Your task to perform on an android device: Open Yahoo.com Image 0: 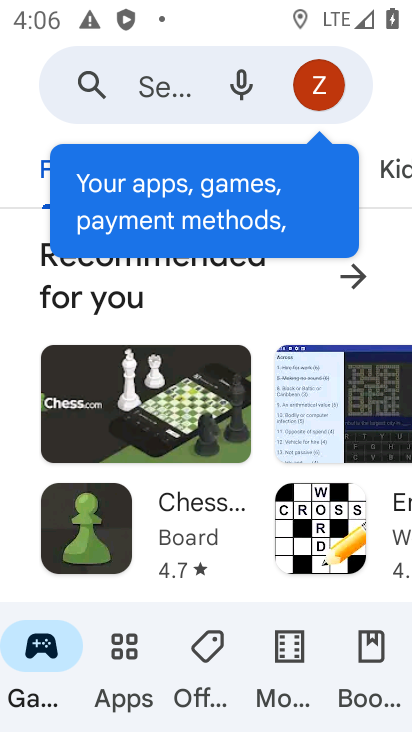
Step 0: press home button
Your task to perform on an android device: Open Yahoo.com Image 1: 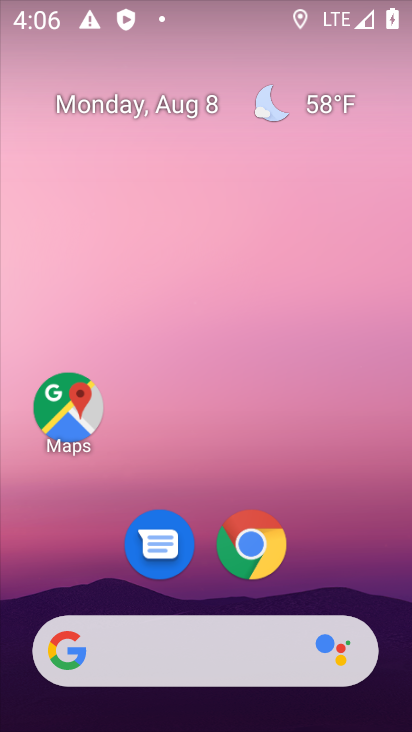
Step 1: drag from (213, 615) to (332, 147)
Your task to perform on an android device: Open Yahoo.com Image 2: 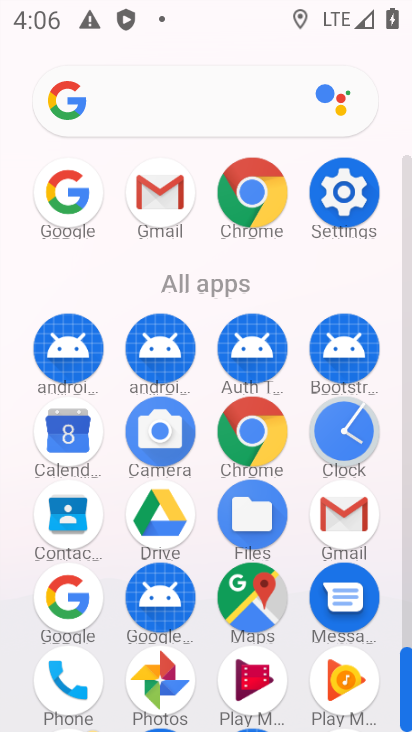
Step 2: click (247, 223)
Your task to perform on an android device: Open Yahoo.com Image 3: 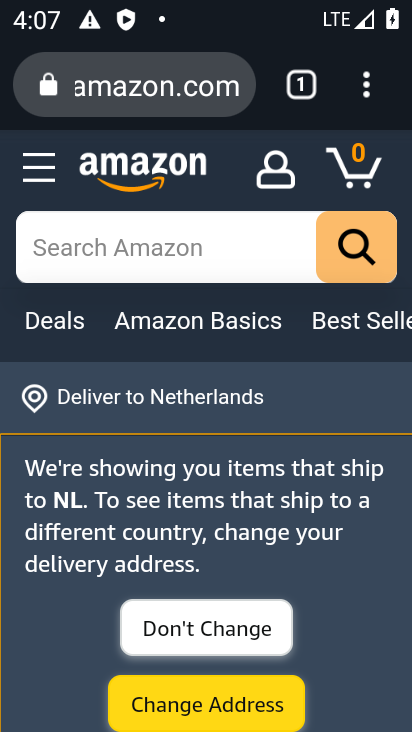
Step 3: click (157, 96)
Your task to perform on an android device: Open Yahoo.com Image 4: 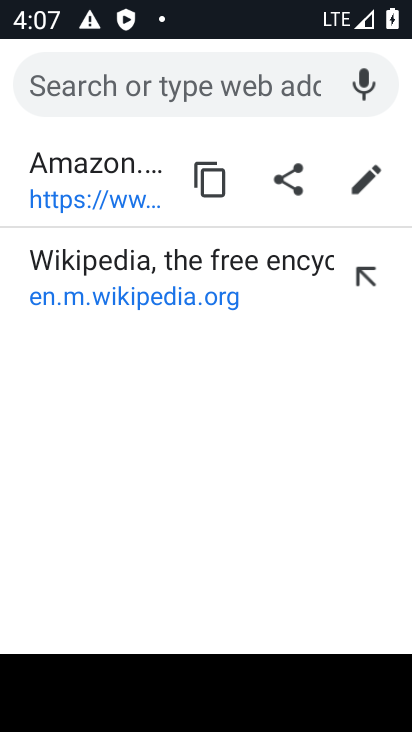
Step 4: type "yahoo"
Your task to perform on an android device: Open Yahoo.com Image 5: 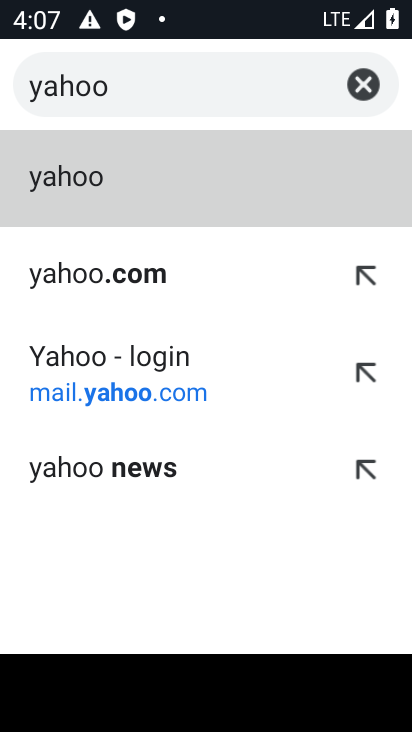
Step 5: click (150, 367)
Your task to perform on an android device: Open Yahoo.com Image 6: 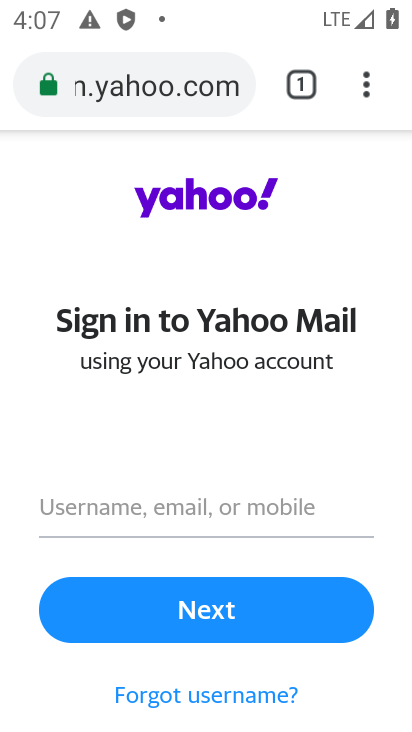
Step 6: task complete